Your task to perform on an android device: Check the settings for the Google Chrome app Image 0: 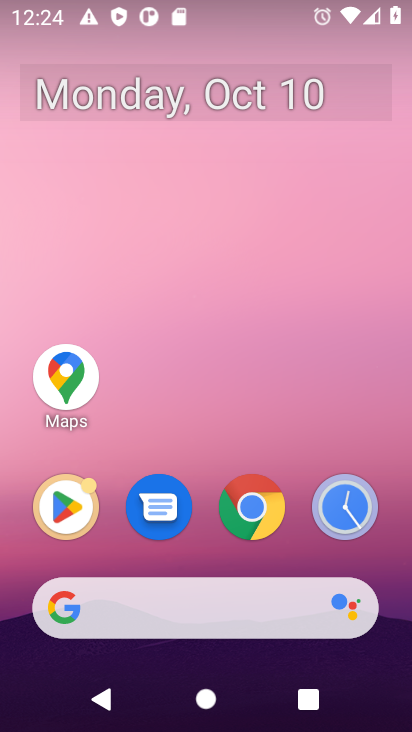
Step 0: drag from (374, 564) to (381, 99)
Your task to perform on an android device: Check the settings for the Google Chrome app Image 1: 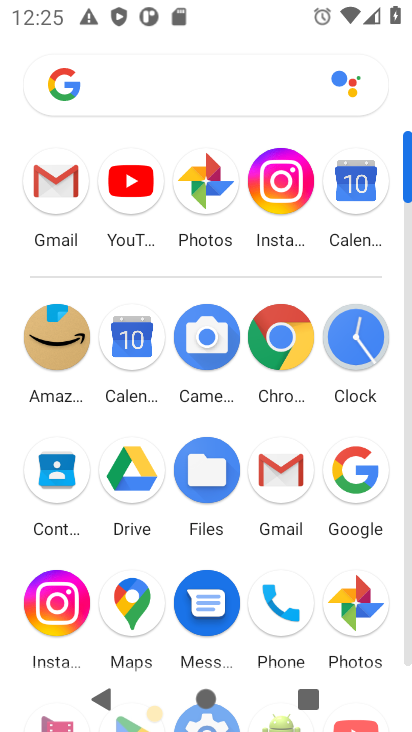
Step 1: click (291, 330)
Your task to perform on an android device: Check the settings for the Google Chrome app Image 2: 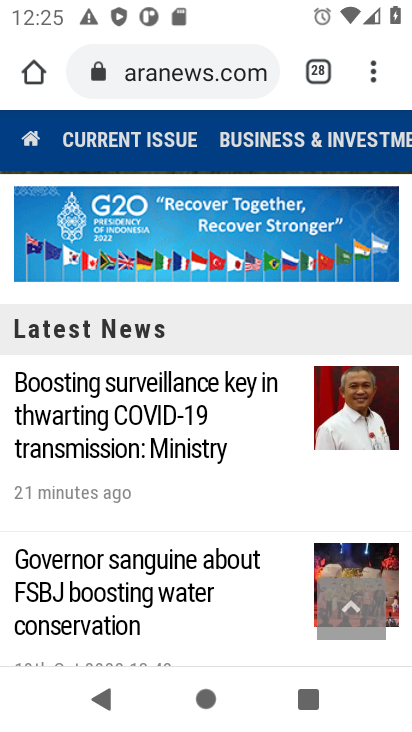
Step 2: click (373, 66)
Your task to perform on an android device: Check the settings for the Google Chrome app Image 3: 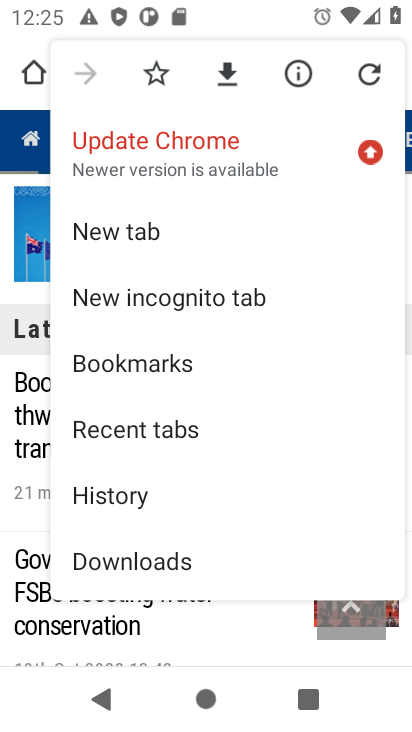
Step 3: drag from (242, 515) to (283, 218)
Your task to perform on an android device: Check the settings for the Google Chrome app Image 4: 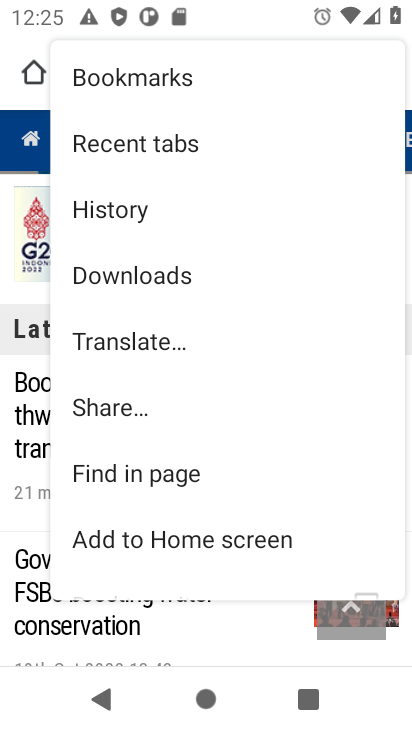
Step 4: drag from (297, 523) to (320, 208)
Your task to perform on an android device: Check the settings for the Google Chrome app Image 5: 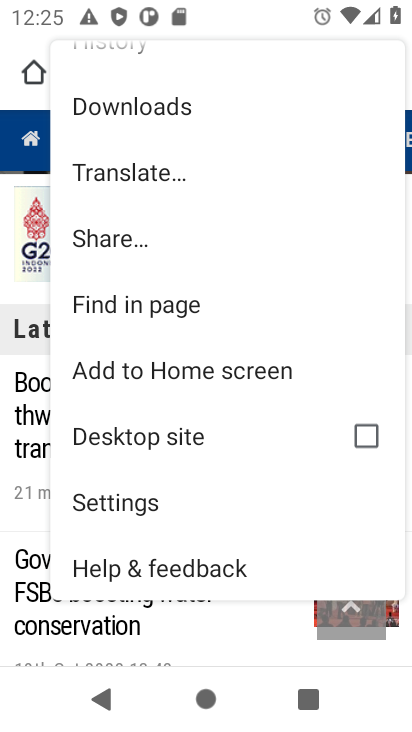
Step 5: click (138, 504)
Your task to perform on an android device: Check the settings for the Google Chrome app Image 6: 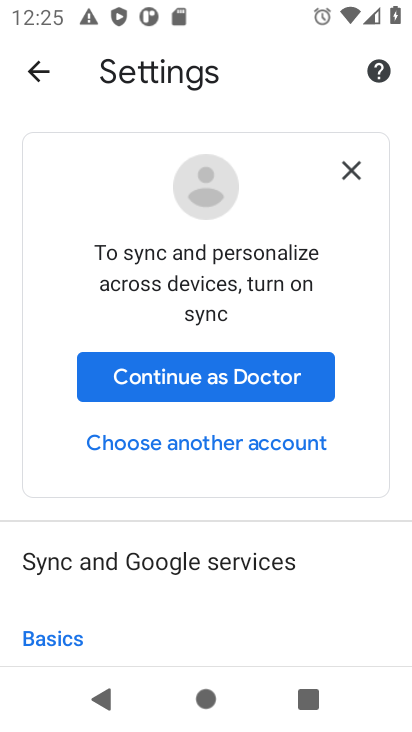
Step 6: task complete